Your task to perform on an android device: change the clock display to analog Image 0: 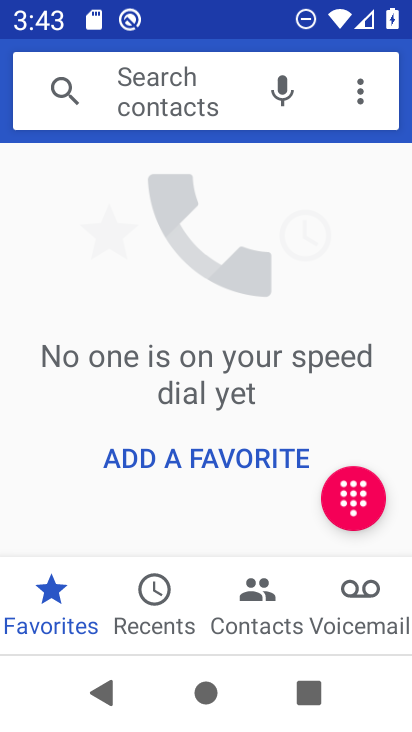
Step 0: task complete